Your task to perform on an android device: Go to Google maps Image 0: 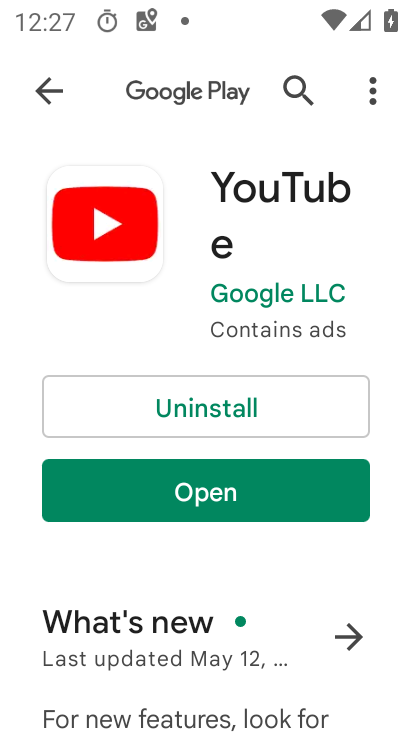
Step 0: press home button
Your task to perform on an android device: Go to Google maps Image 1: 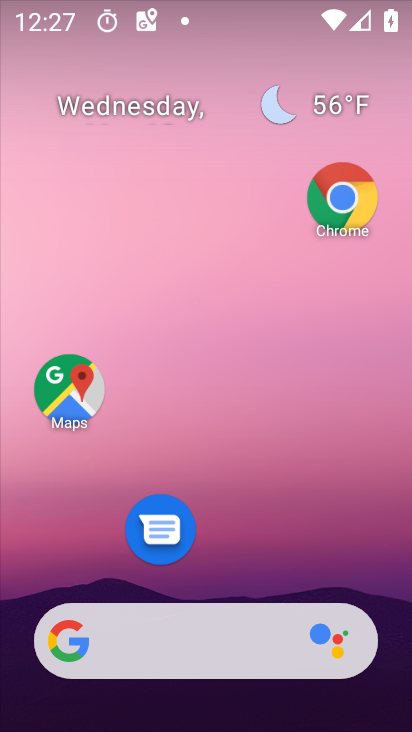
Step 1: click (63, 391)
Your task to perform on an android device: Go to Google maps Image 2: 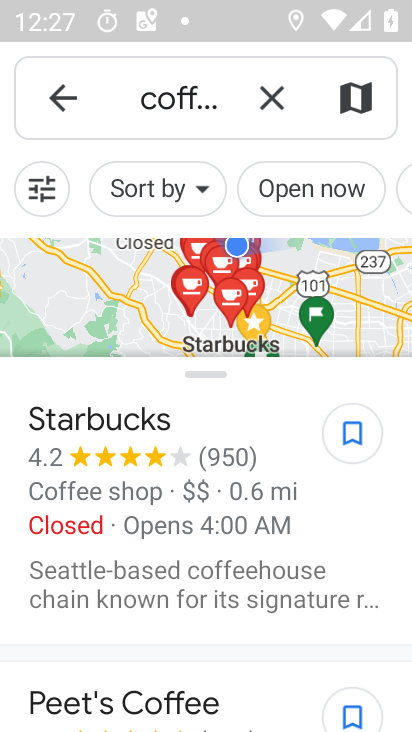
Step 2: task complete